Your task to perform on an android device: Go to Reddit.com Image 0: 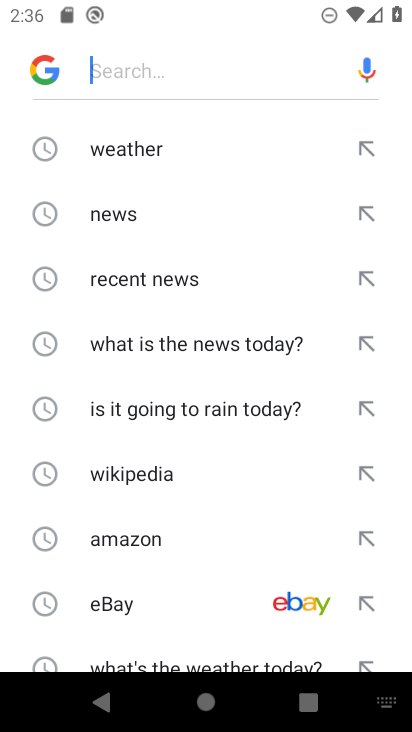
Step 0: type "reddit"
Your task to perform on an android device: Go to Reddit.com Image 1: 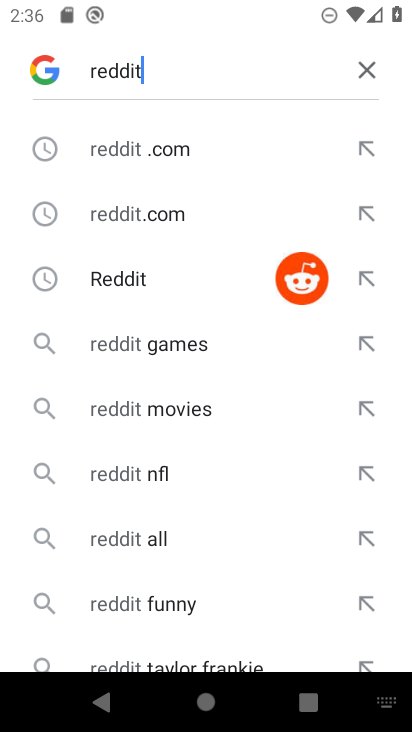
Step 1: click (113, 139)
Your task to perform on an android device: Go to Reddit.com Image 2: 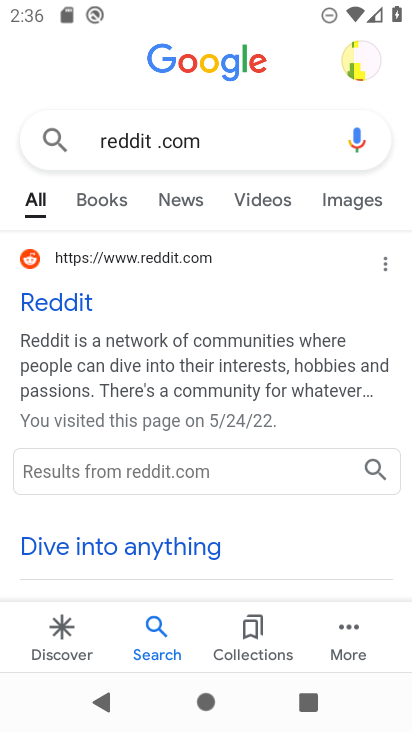
Step 2: click (76, 313)
Your task to perform on an android device: Go to Reddit.com Image 3: 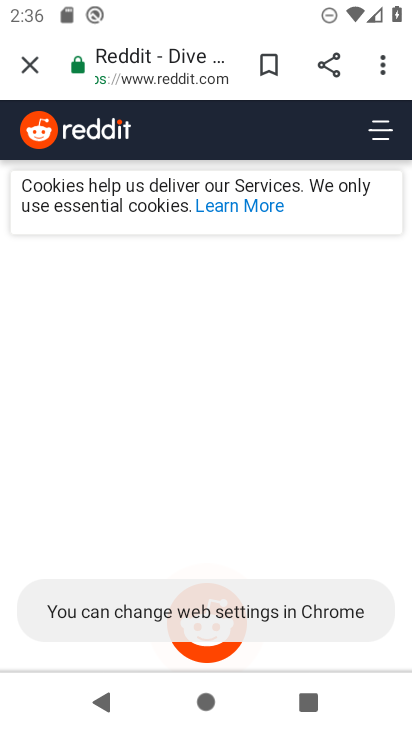
Step 3: task complete